Your task to perform on an android device: Is it going to rain today? Image 0: 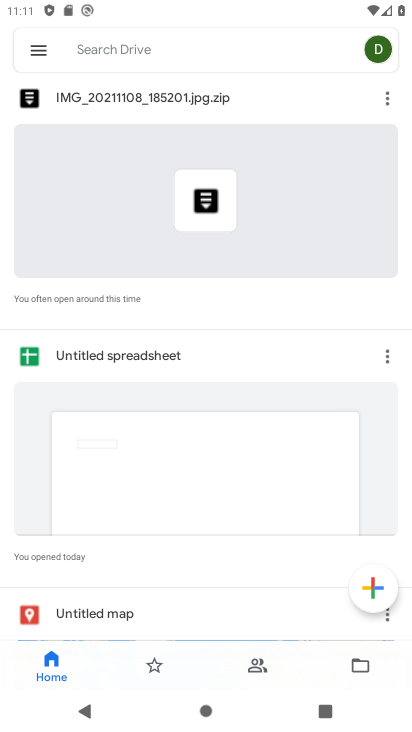
Step 0: press home button
Your task to perform on an android device: Is it going to rain today? Image 1: 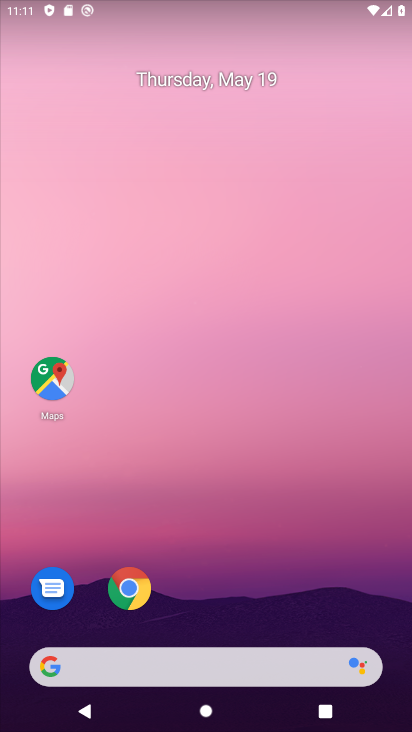
Step 1: click (46, 662)
Your task to perform on an android device: Is it going to rain today? Image 2: 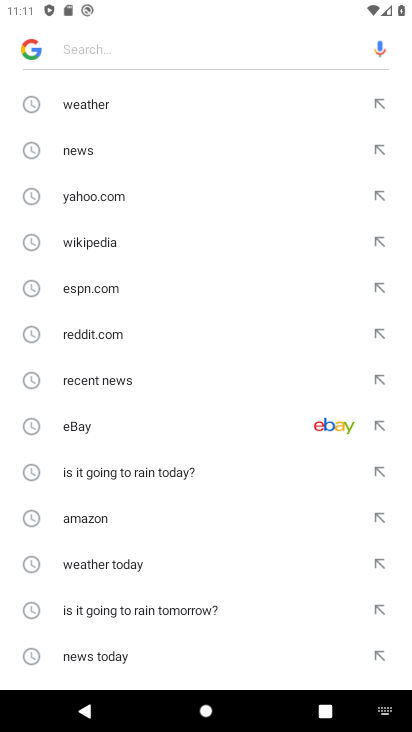
Step 2: click (23, 51)
Your task to perform on an android device: Is it going to rain today? Image 3: 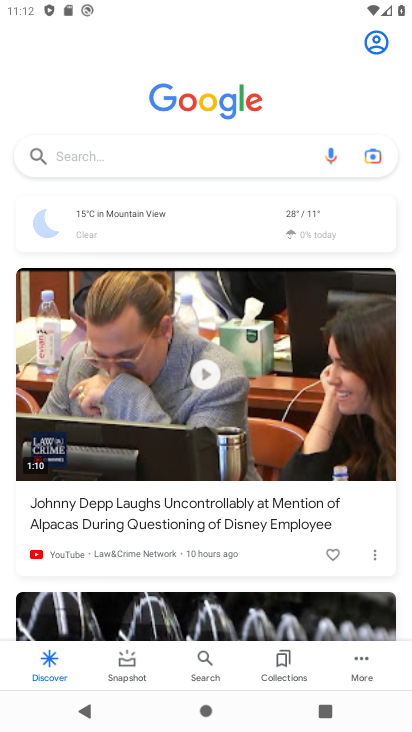
Step 3: click (174, 226)
Your task to perform on an android device: Is it going to rain today? Image 4: 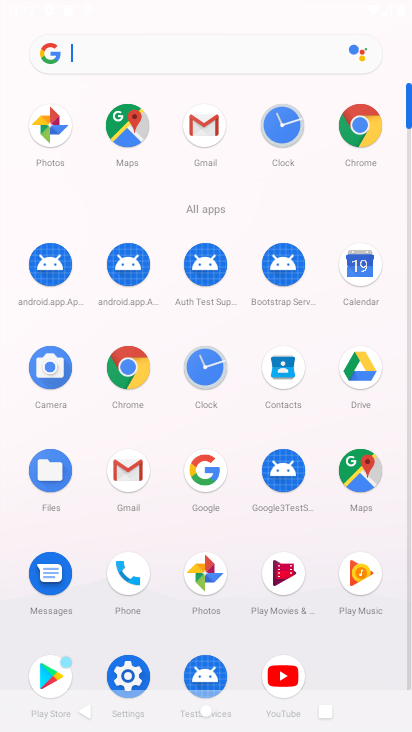
Step 4: click (49, 53)
Your task to perform on an android device: Is it going to rain today? Image 5: 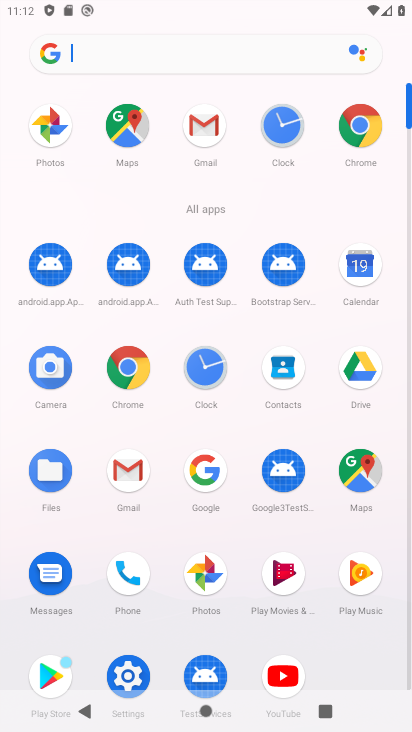
Step 5: click (49, 55)
Your task to perform on an android device: Is it going to rain today? Image 6: 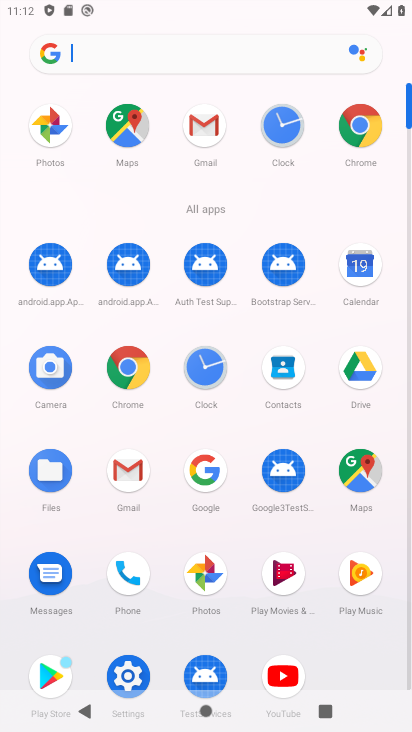
Step 6: click (49, 55)
Your task to perform on an android device: Is it going to rain today? Image 7: 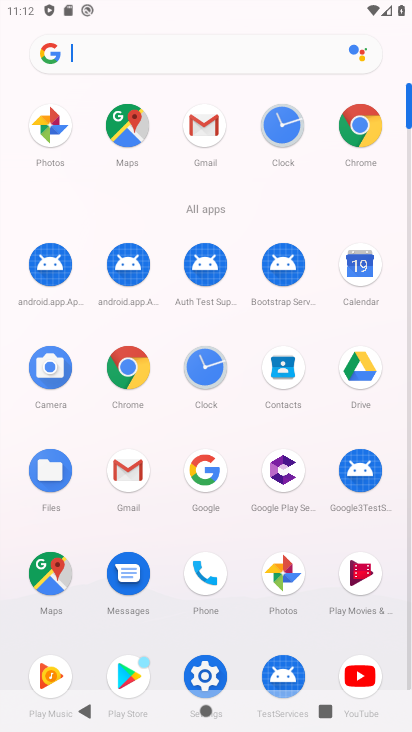
Step 7: click (38, 59)
Your task to perform on an android device: Is it going to rain today? Image 8: 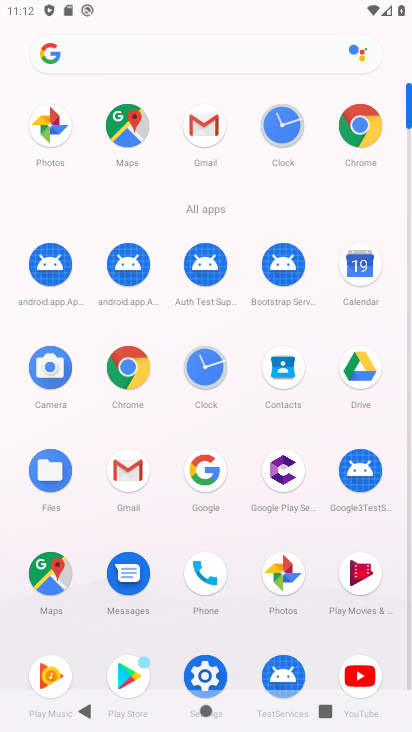
Step 8: click (52, 59)
Your task to perform on an android device: Is it going to rain today? Image 9: 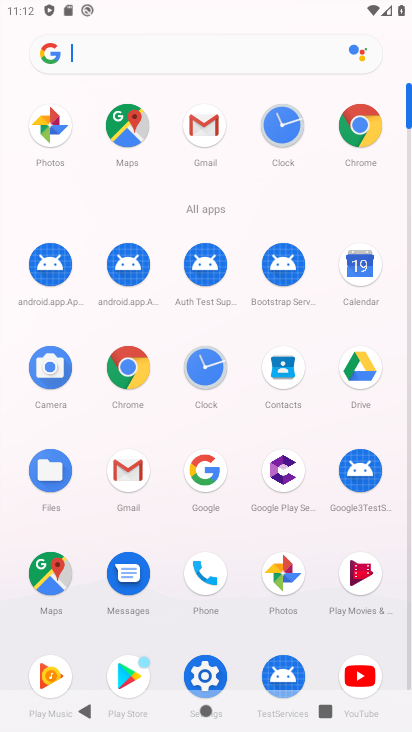
Step 9: click (51, 64)
Your task to perform on an android device: Is it going to rain today? Image 10: 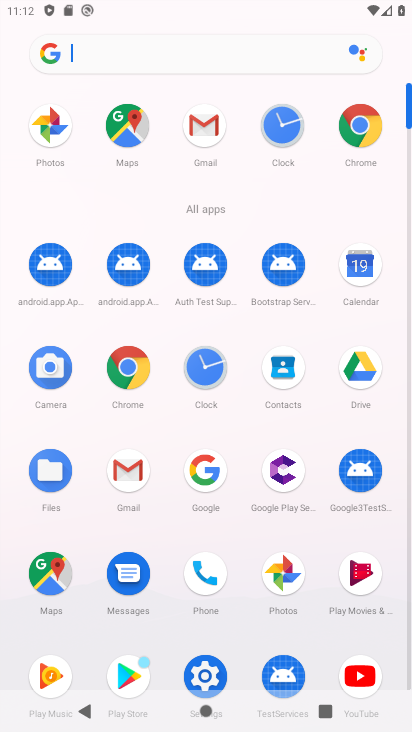
Step 10: click (51, 64)
Your task to perform on an android device: Is it going to rain today? Image 11: 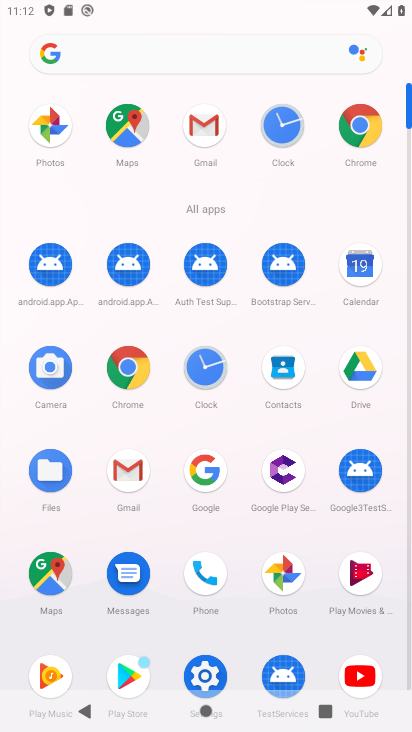
Step 11: click (74, 704)
Your task to perform on an android device: Is it going to rain today? Image 12: 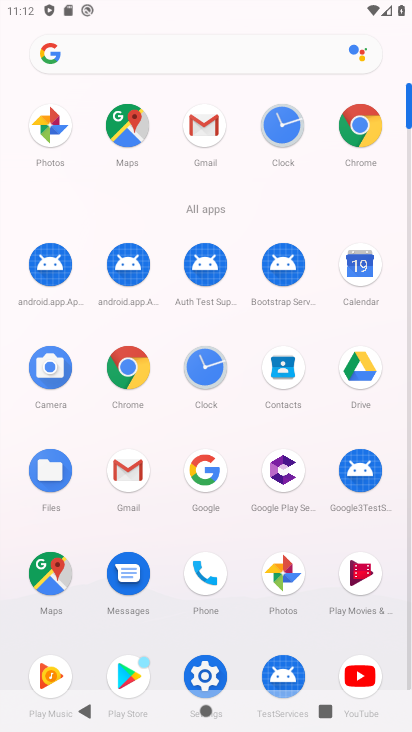
Step 12: click (221, 477)
Your task to perform on an android device: Is it going to rain today? Image 13: 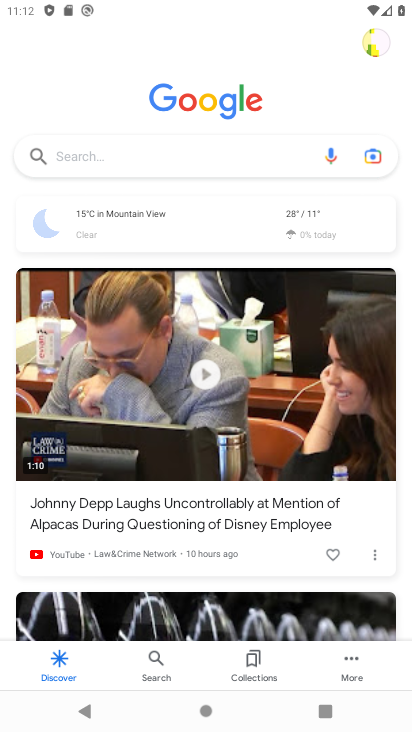
Step 13: click (166, 217)
Your task to perform on an android device: Is it going to rain today? Image 14: 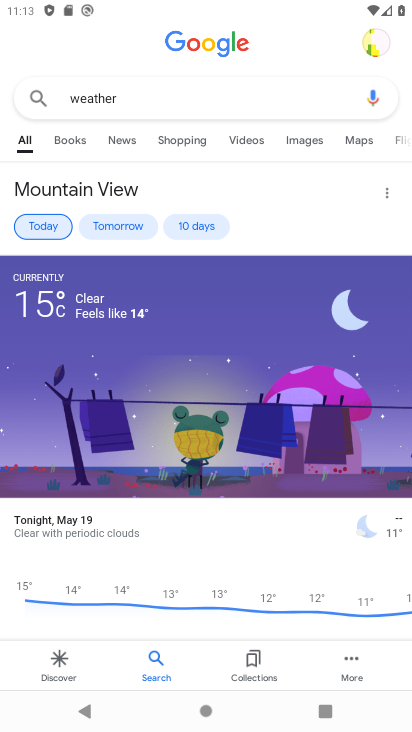
Step 14: task complete